Your task to perform on an android device: change the clock display to show seconds Image 0: 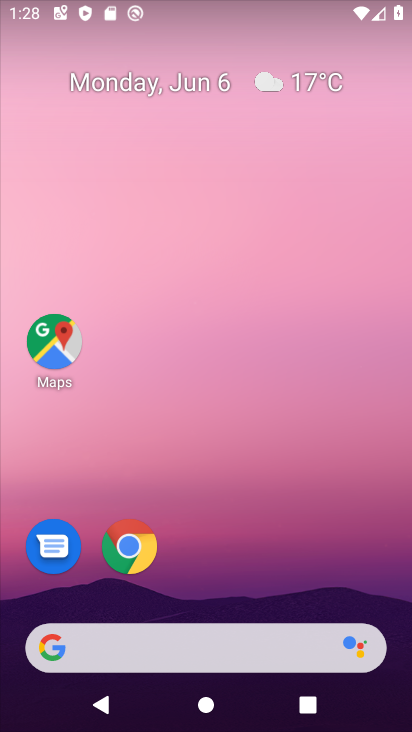
Step 0: drag from (245, 607) to (282, 257)
Your task to perform on an android device: change the clock display to show seconds Image 1: 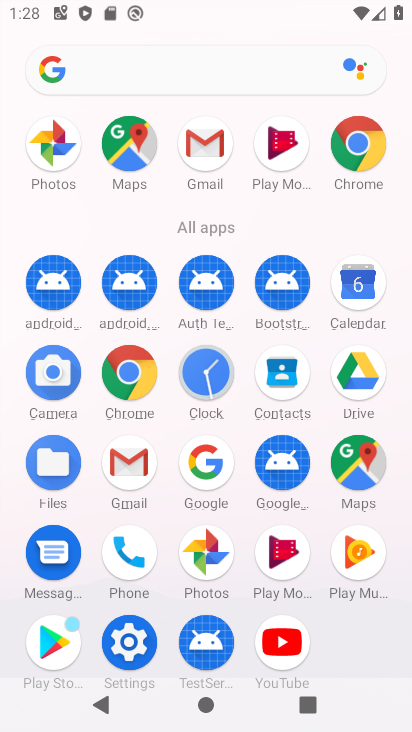
Step 1: click (207, 394)
Your task to perform on an android device: change the clock display to show seconds Image 2: 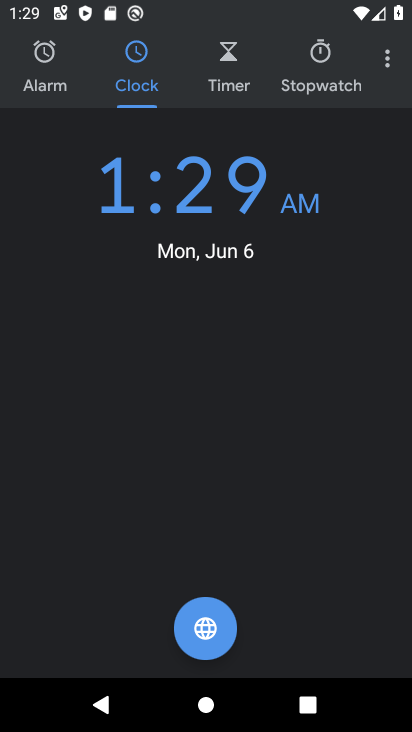
Step 2: click (399, 74)
Your task to perform on an android device: change the clock display to show seconds Image 3: 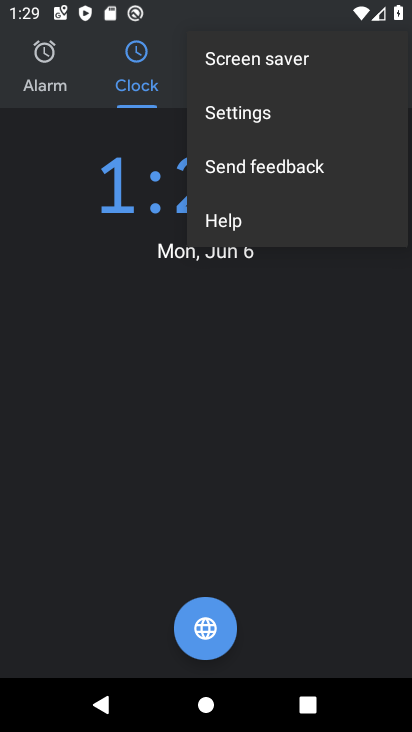
Step 3: click (271, 121)
Your task to perform on an android device: change the clock display to show seconds Image 4: 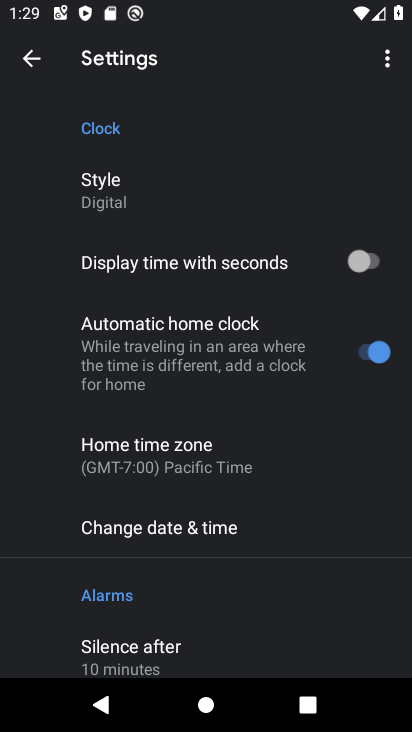
Step 4: click (369, 263)
Your task to perform on an android device: change the clock display to show seconds Image 5: 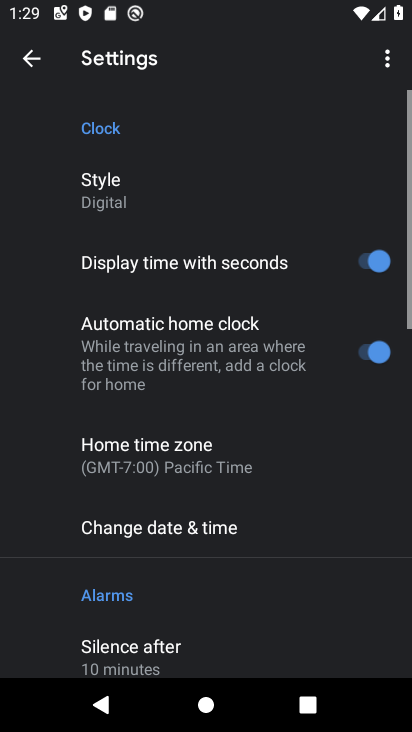
Step 5: task complete